Your task to perform on an android device: Check the weather Image 0: 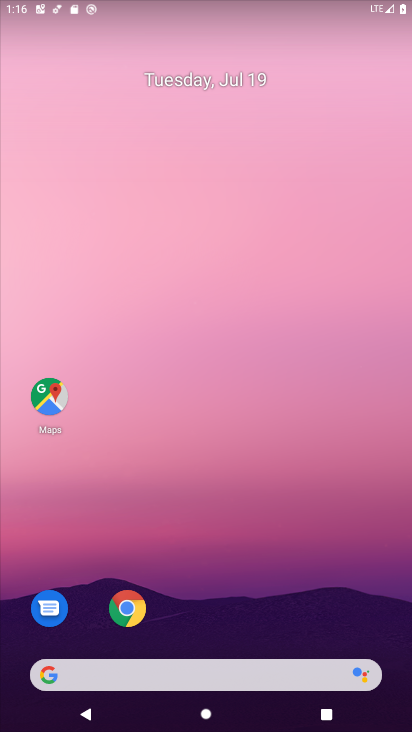
Step 0: drag from (259, 586) to (246, 134)
Your task to perform on an android device: Check the weather Image 1: 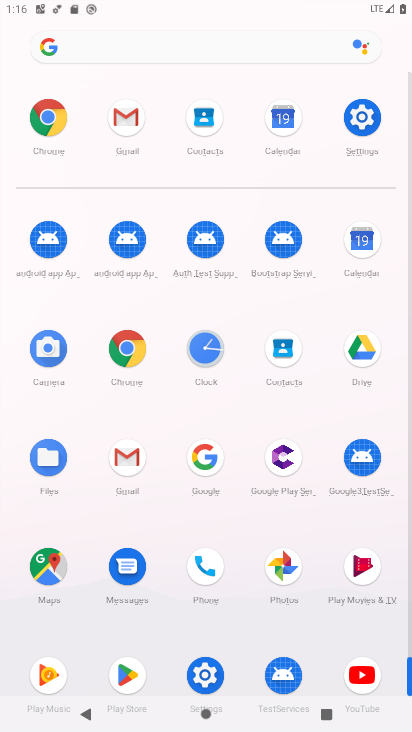
Step 1: click (128, 365)
Your task to perform on an android device: Check the weather Image 2: 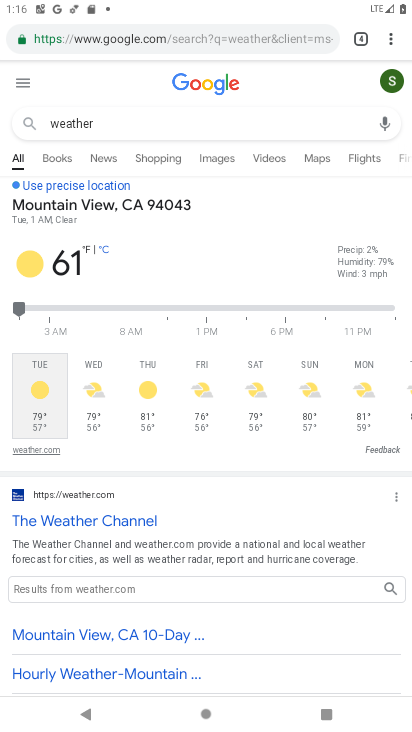
Step 2: task complete